Your task to perform on an android device: open the mobile data screen to see how much data has been used Image 0: 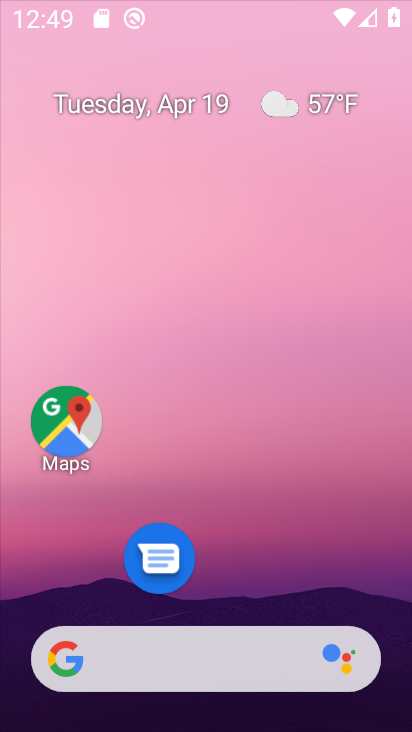
Step 0: drag from (227, 570) to (189, 197)
Your task to perform on an android device: open the mobile data screen to see how much data has been used Image 1: 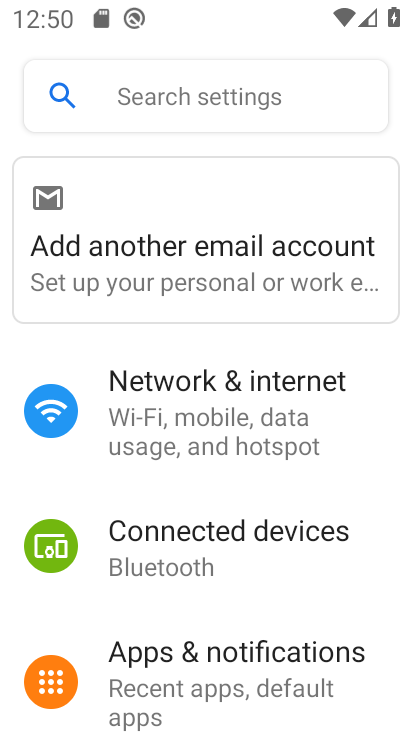
Step 1: click (256, 428)
Your task to perform on an android device: open the mobile data screen to see how much data has been used Image 2: 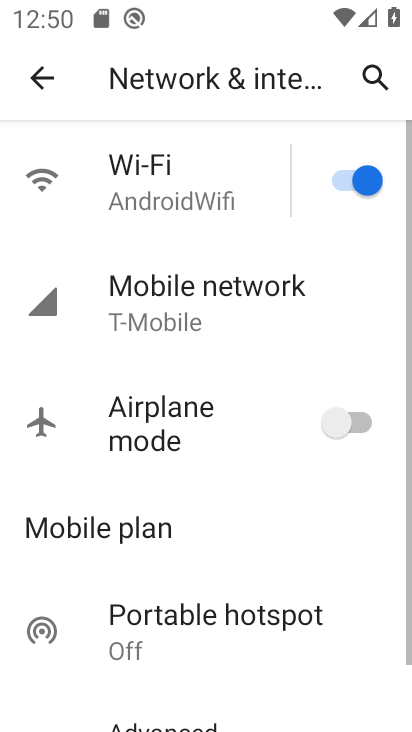
Step 2: click (180, 301)
Your task to perform on an android device: open the mobile data screen to see how much data has been used Image 3: 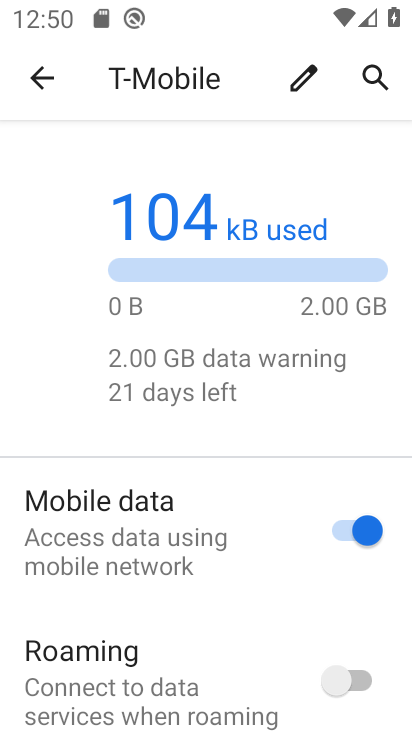
Step 3: task complete